Your task to perform on an android device: open app "Gmail" (install if not already installed) Image 0: 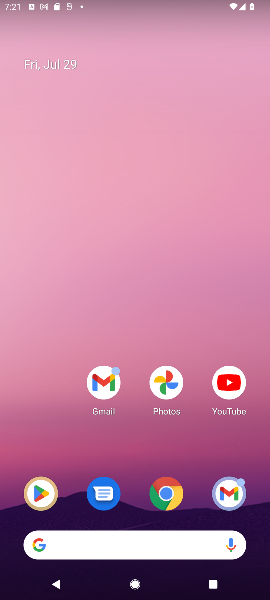
Step 0: drag from (161, 586) to (159, 106)
Your task to perform on an android device: open app "Gmail" (install if not already installed) Image 1: 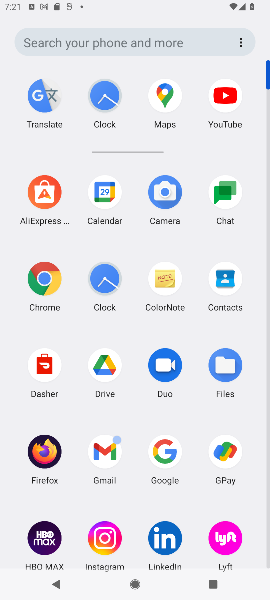
Step 1: drag from (135, 513) to (136, 233)
Your task to perform on an android device: open app "Gmail" (install if not already installed) Image 2: 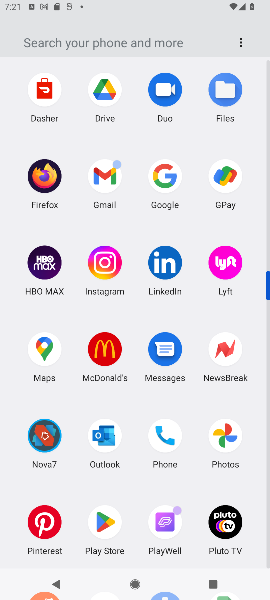
Step 2: click (101, 182)
Your task to perform on an android device: open app "Gmail" (install if not already installed) Image 3: 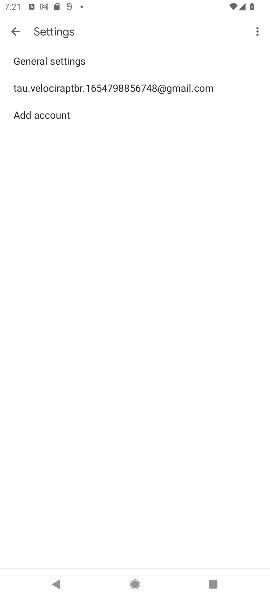
Step 3: task complete